Your task to perform on an android device: Open sound settings Image 0: 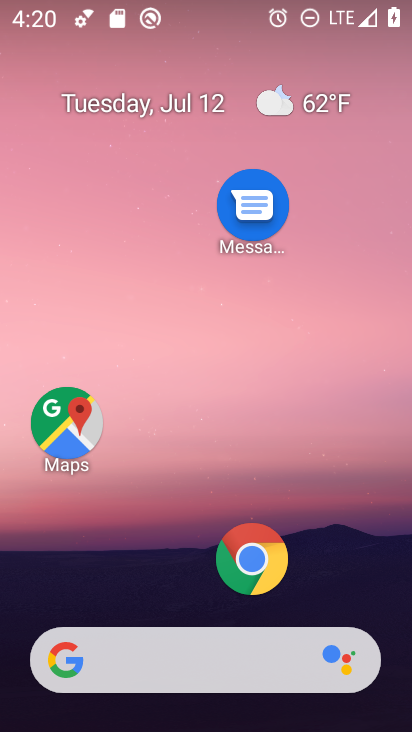
Step 0: drag from (196, 598) to (270, 19)
Your task to perform on an android device: Open sound settings Image 1: 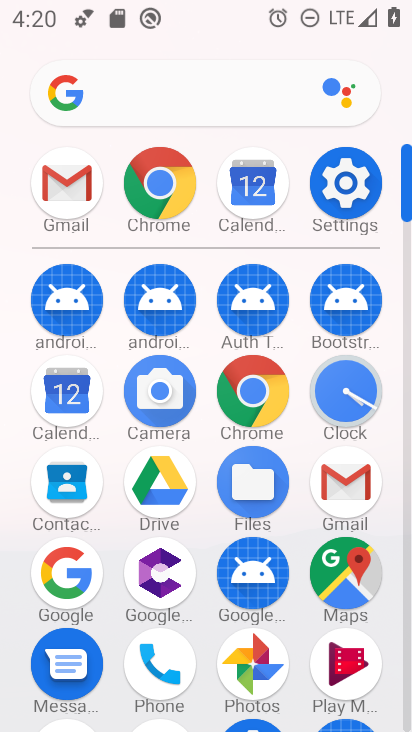
Step 1: click (354, 179)
Your task to perform on an android device: Open sound settings Image 2: 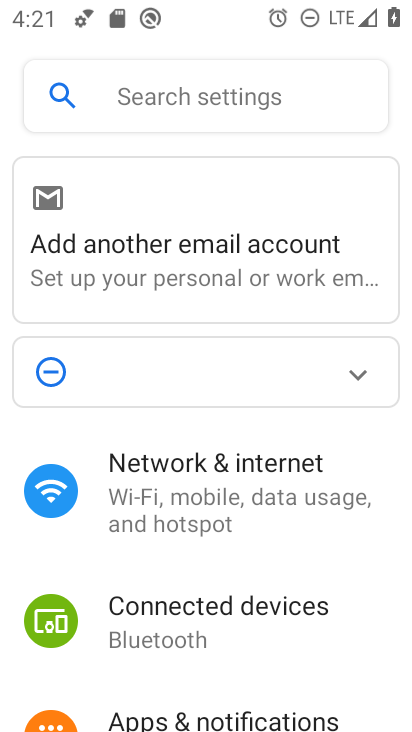
Step 2: drag from (191, 637) to (272, 120)
Your task to perform on an android device: Open sound settings Image 3: 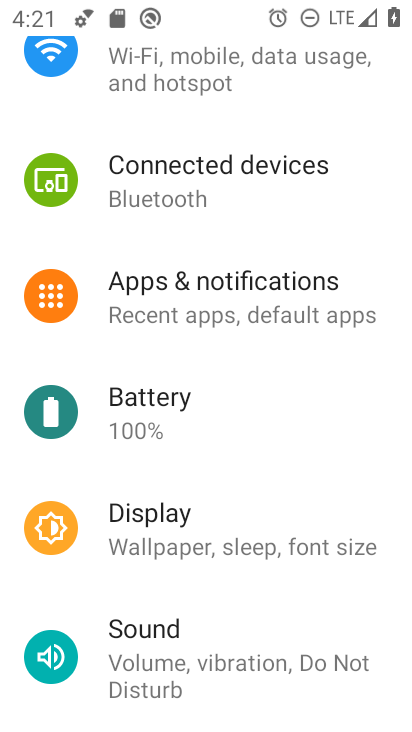
Step 3: click (154, 663)
Your task to perform on an android device: Open sound settings Image 4: 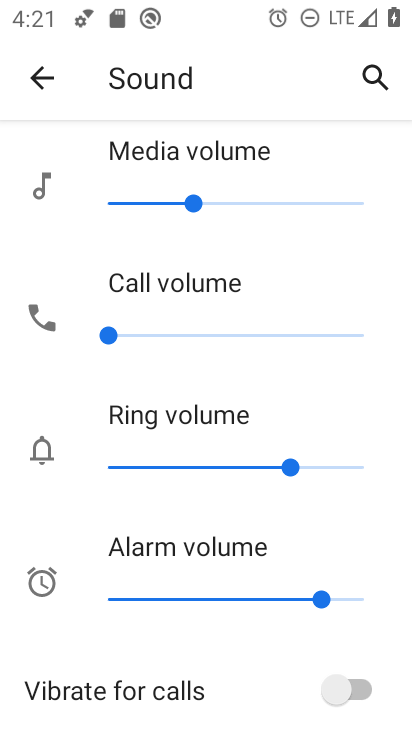
Step 4: task complete